Your task to perform on an android device: Go to notification settings Image 0: 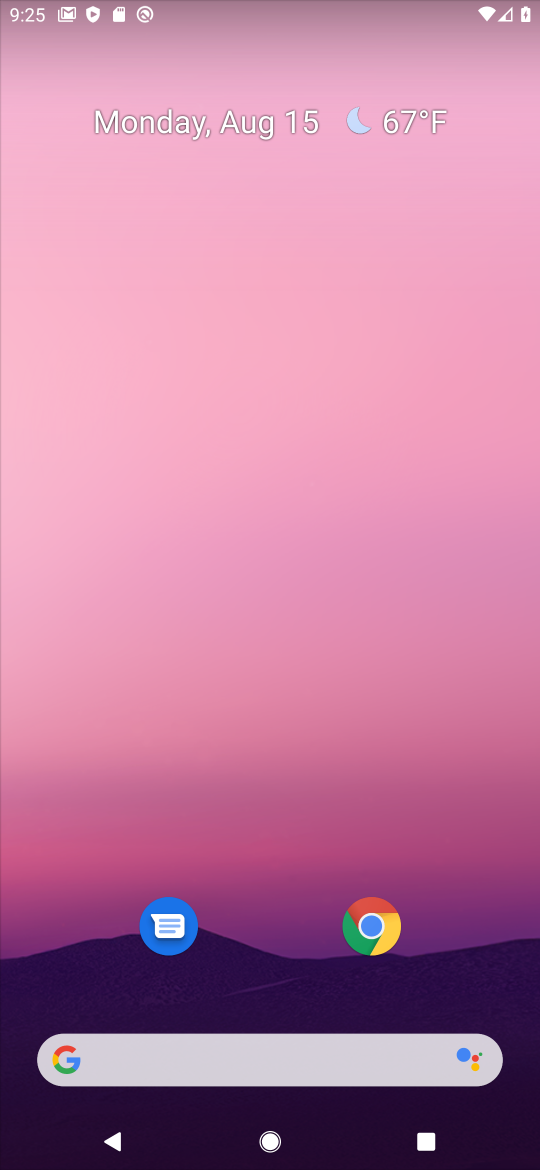
Step 0: drag from (305, 997) to (225, 8)
Your task to perform on an android device: Go to notification settings Image 1: 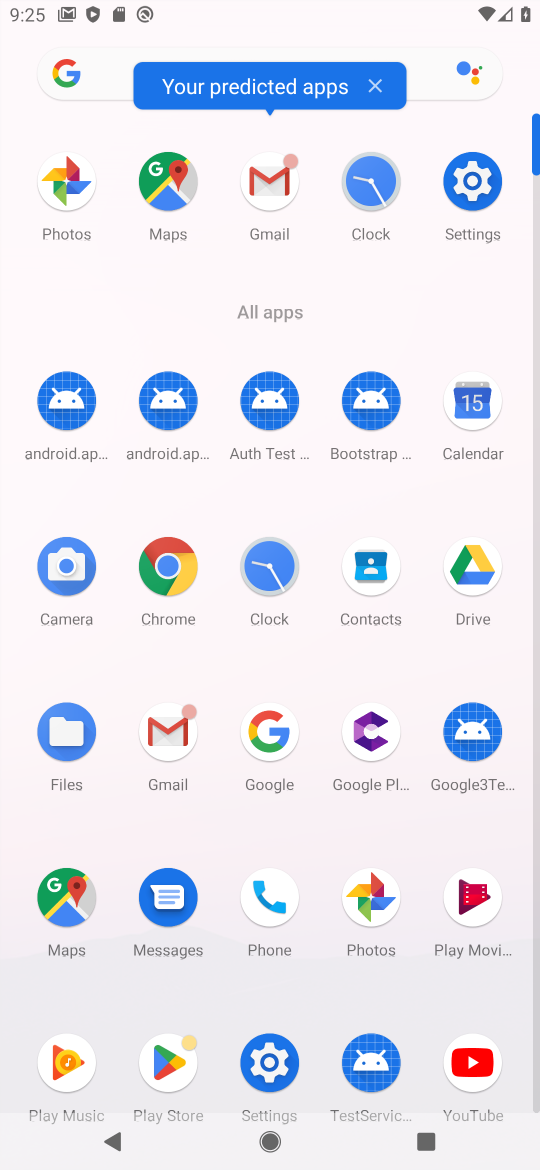
Step 1: click (475, 209)
Your task to perform on an android device: Go to notification settings Image 2: 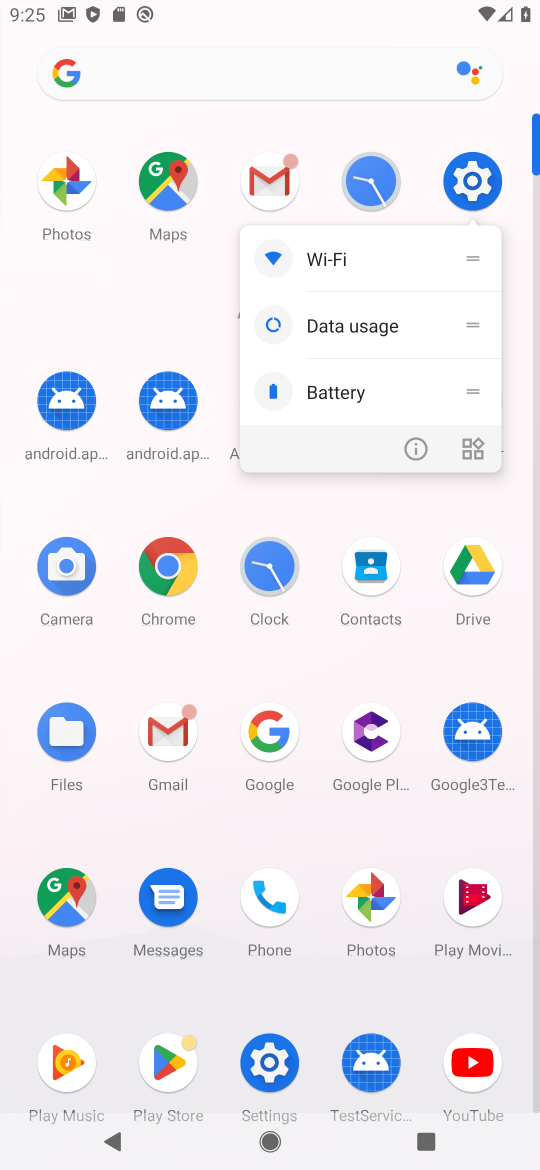
Step 2: click (475, 212)
Your task to perform on an android device: Go to notification settings Image 3: 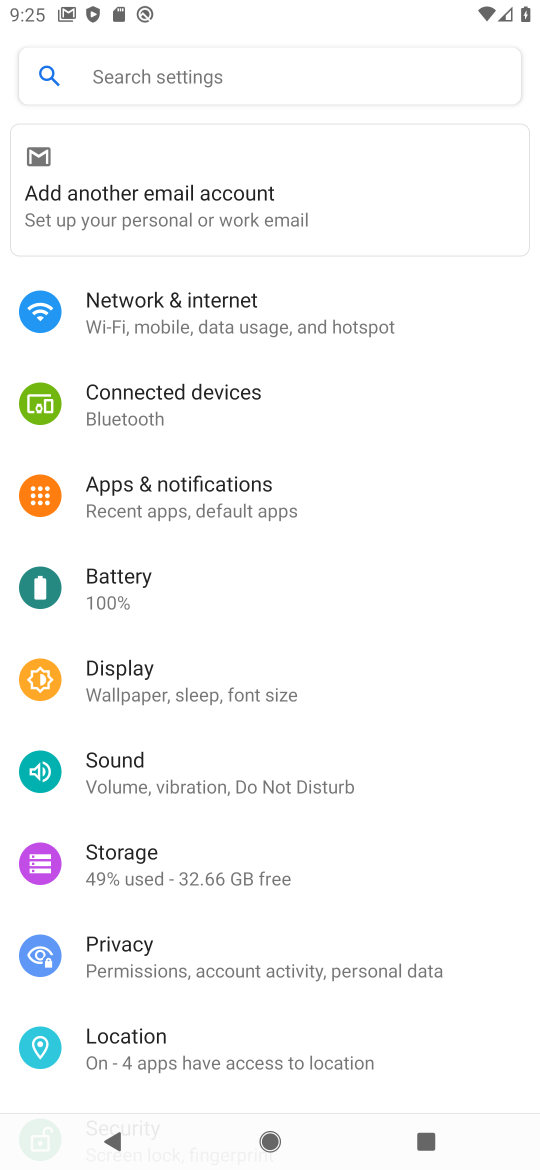
Step 3: click (228, 515)
Your task to perform on an android device: Go to notification settings Image 4: 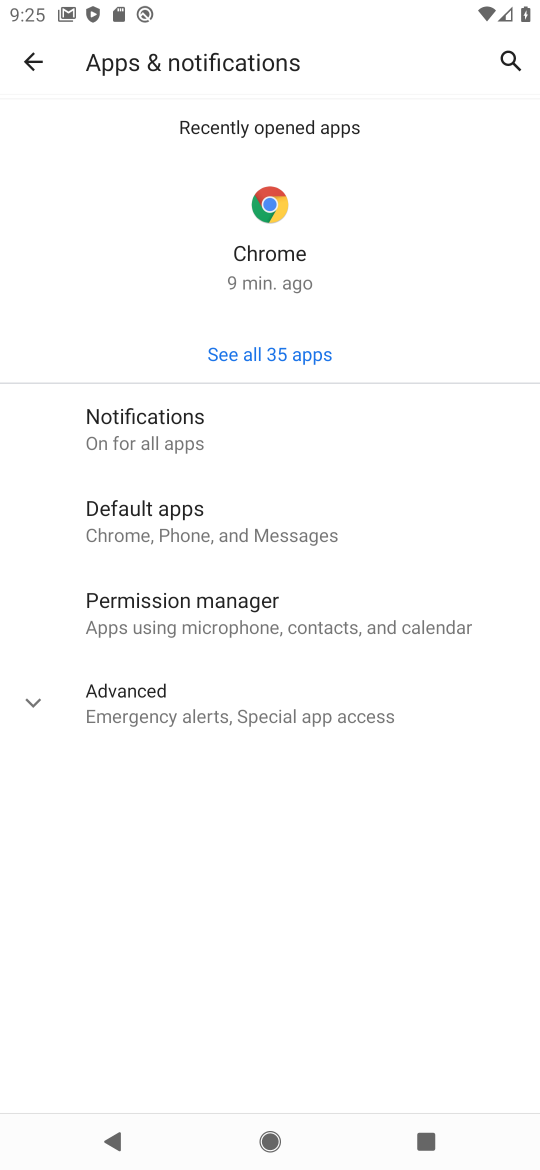
Step 4: click (144, 456)
Your task to perform on an android device: Go to notification settings Image 5: 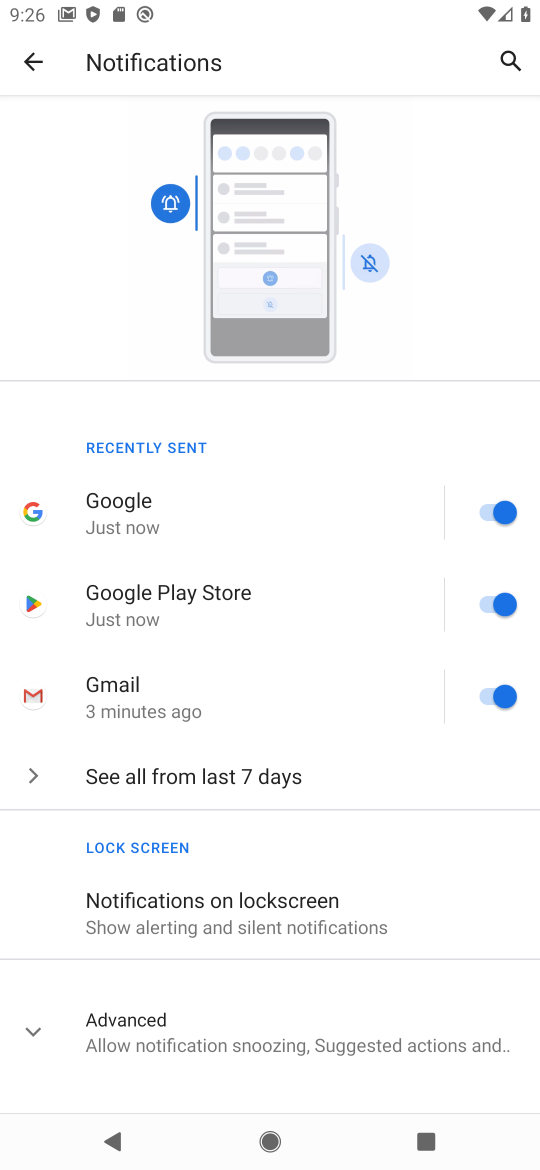
Step 5: task complete